Your task to perform on an android device: Open Youtube and go to the subscriptions tab Image 0: 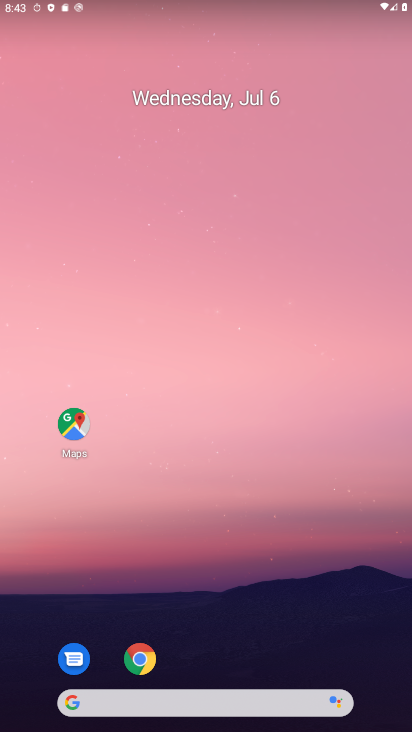
Step 0: drag from (364, 652) to (368, 36)
Your task to perform on an android device: Open Youtube and go to the subscriptions tab Image 1: 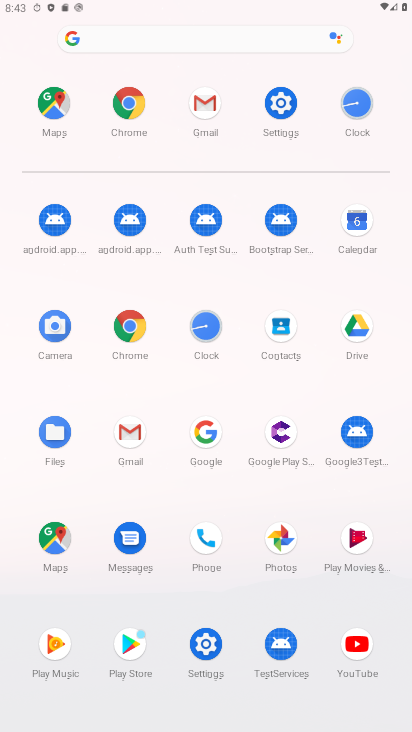
Step 1: click (358, 639)
Your task to perform on an android device: Open Youtube and go to the subscriptions tab Image 2: 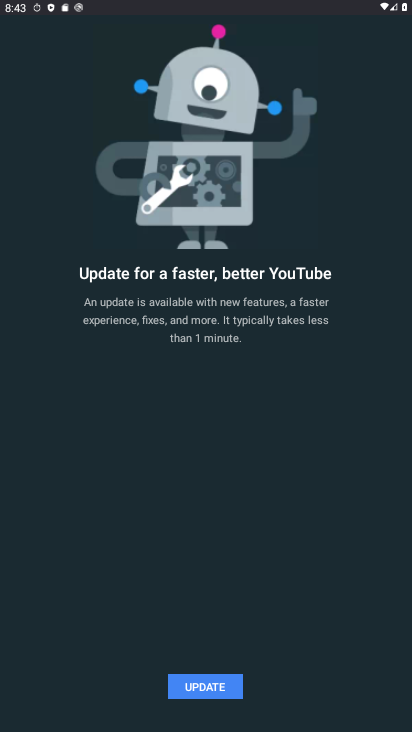
Step 2: click (233, 697)
Your task to perform on an android device: Open Youtube and go to the subscriptions tab Image 3: 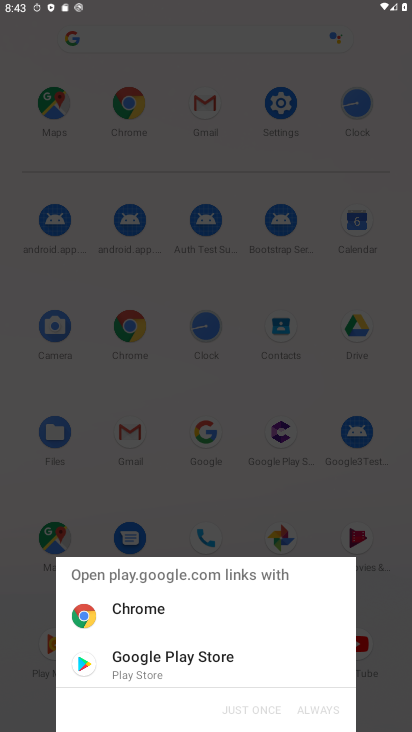
Step 3: click (210, 649)
Your task to perform on an android device: Open Youtube and go to the subscriptions tab Image 4: 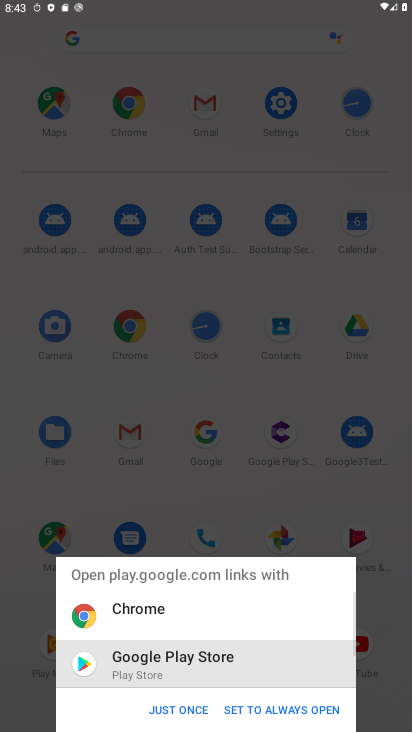
Step 4: click (181, 714)
Your task to perform on an android device: Open Youtube and go to the subscriptions tab Image 5: 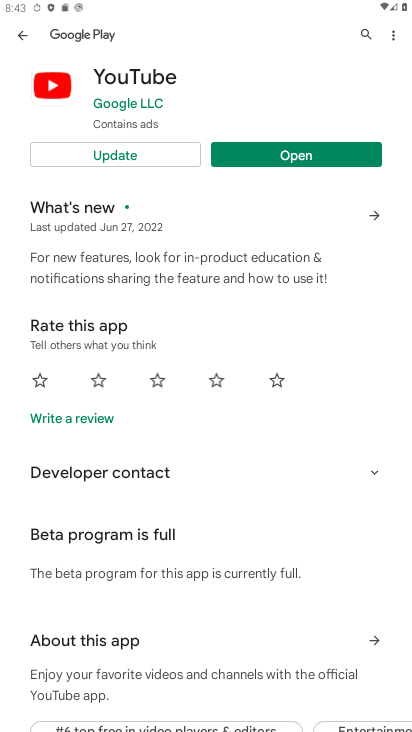
Step 5: click (141, 155)
Your task to perform on an android device: Open Youtube and go to the subscriptions tab Image 6: 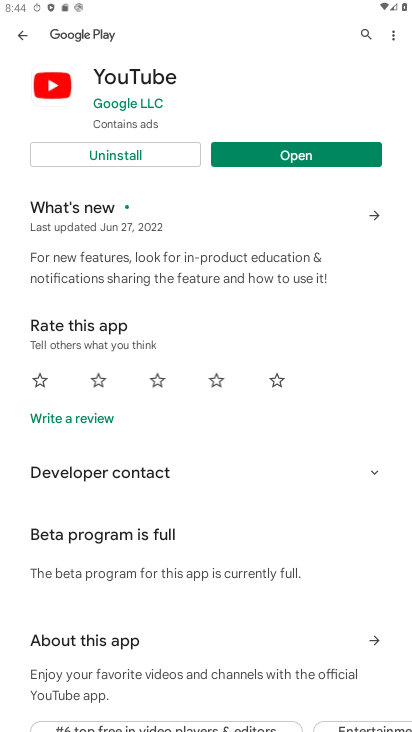
Step 6: click (332, 149)
Your task to perform on an android device: Open Youtube and go to the subscriptions tab Image 7: 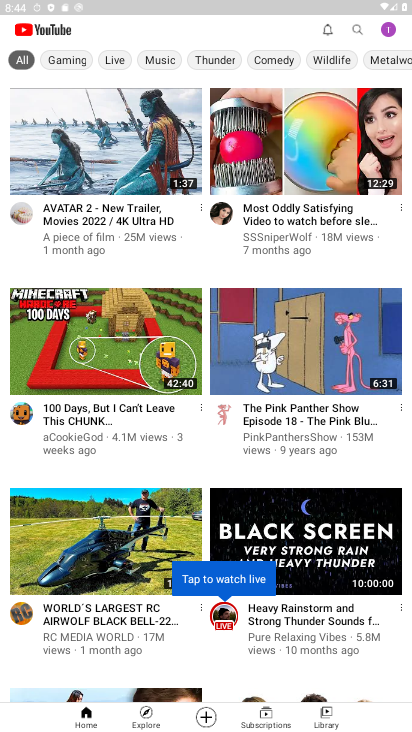
Step 7: click (265, 719)
Your task to perform on an android device: Open Youtube and go to the subscriptions tab Image 8: 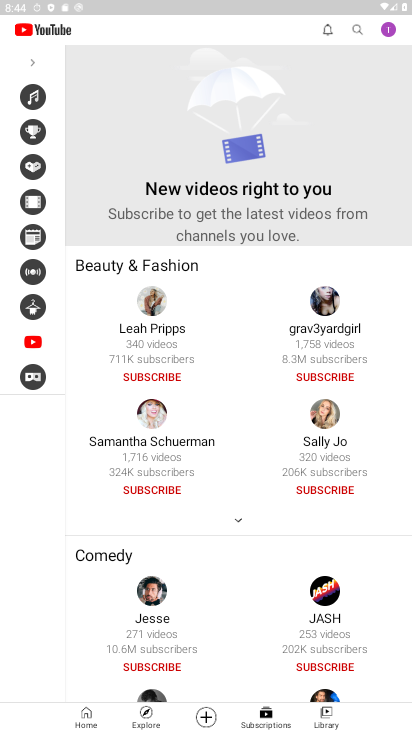
Step 8: task complete